Your task to perform on an android device: add a label to a message in the gmail app Image 0: 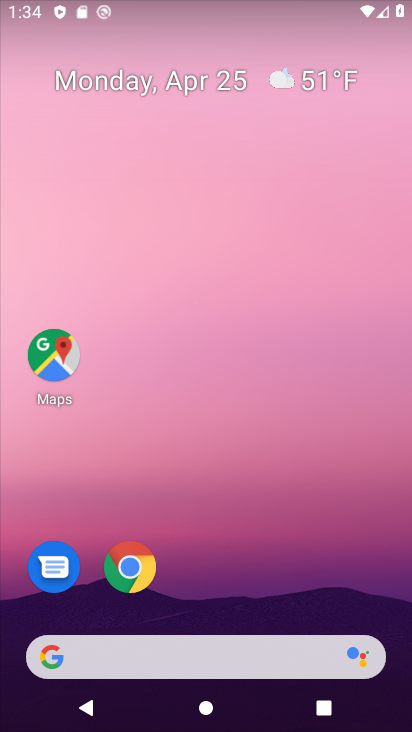
Step 0: drag from (313, 609) to (212, 7)
Your task to perform on an android device: add a label to a message in the gmail app Image 1: 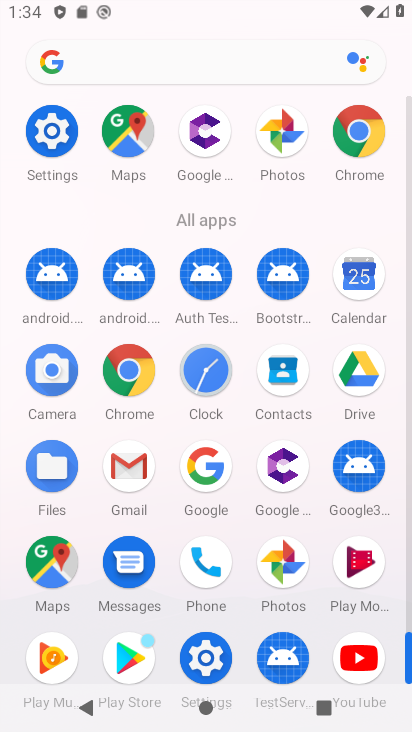
Step 1: click (130, 463)
Your task to perform on an android device: add a label to a message in the gmail app Image 2: 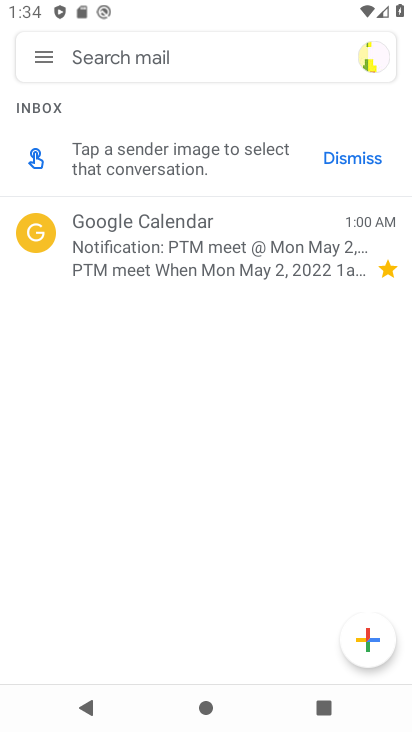
Step 2: click (200, 231)
Your task to perform on an android device: add a label to a message in the gmail app Image 3: 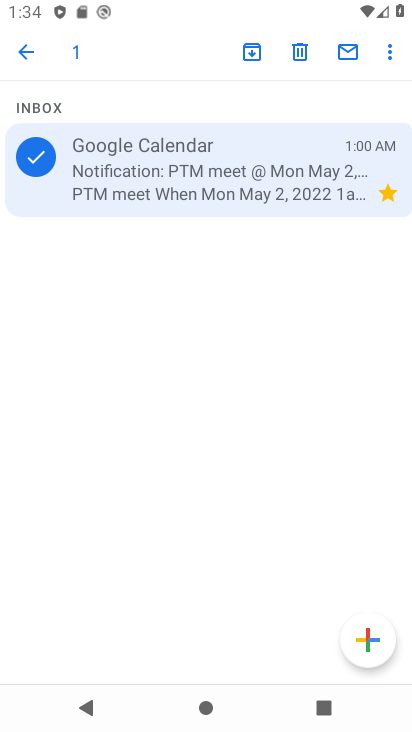
Step 3: click (385, 58)
Your task to perform on an android device: add a label to a message in the gmail app Image 4: 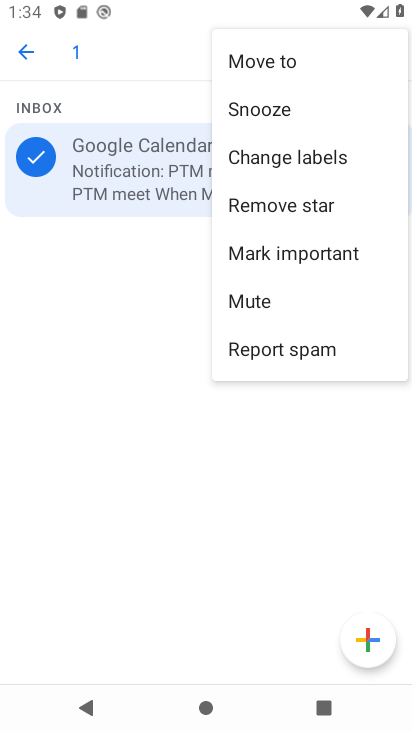
Step 4: click (310, 169)
Your task to perform on an android device: add a label to a message in the gmail app Image 5: 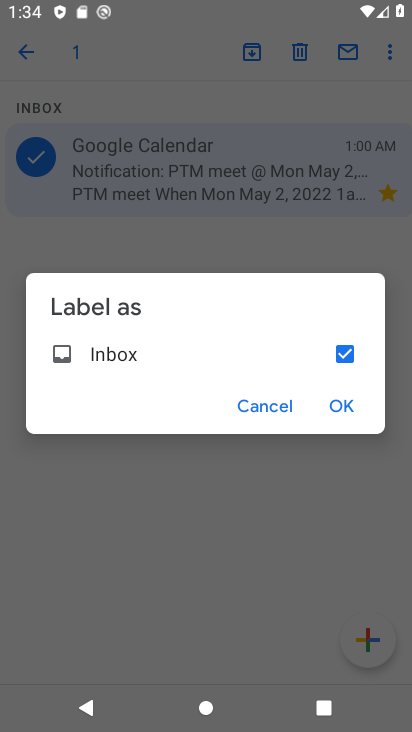
Step 5: click (348, 409)
Your task to perform on an android device: add a label to a message in the gmail app Image 6: 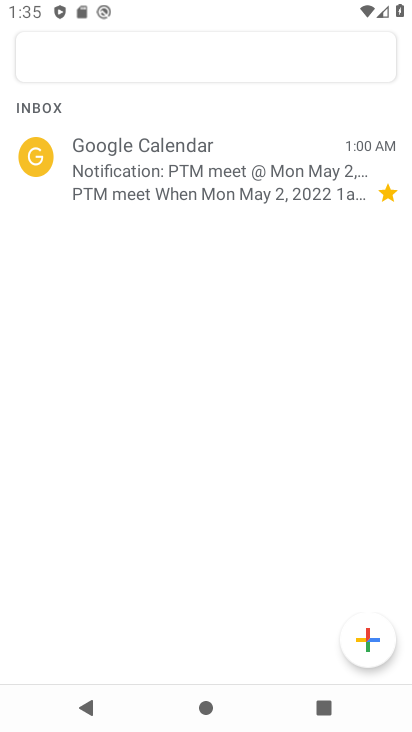
Step 6: task complete